Your task to perform on an android device: check android version Image 0: 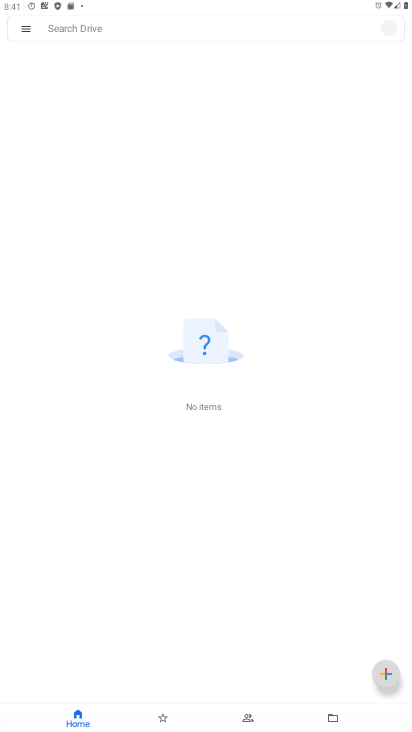
Step 0: press home button
Your task to perform on an android device: check android version Image 1: 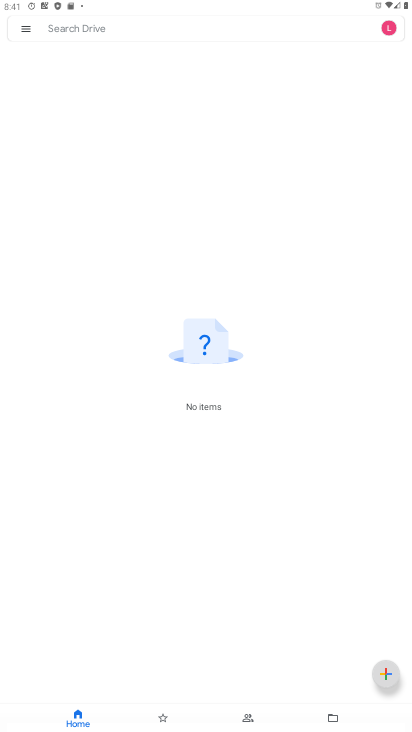
Step 1: drag from (303, 671) to (1, 190)
Your task to perform on an android device: check android version Image 2: 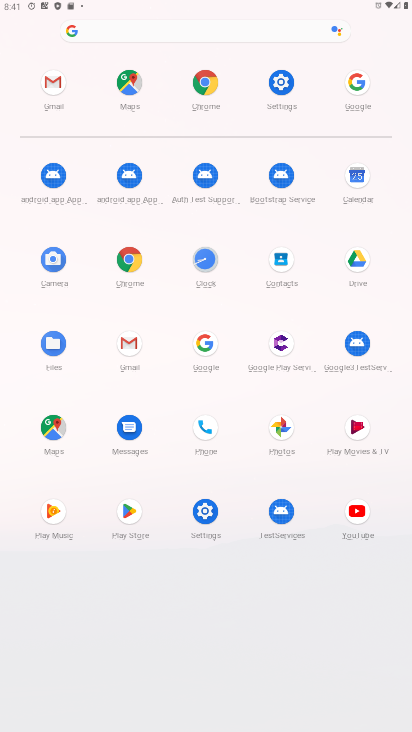
Step 2: click (212, 518)
Your task to perform on an android device: check android version Image 3: 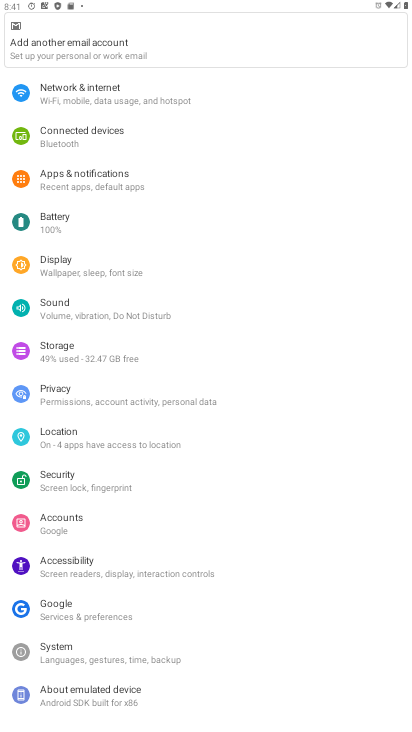
Step 3: click (99, 694)
Your task to perform on an android device: check android version Image 4: 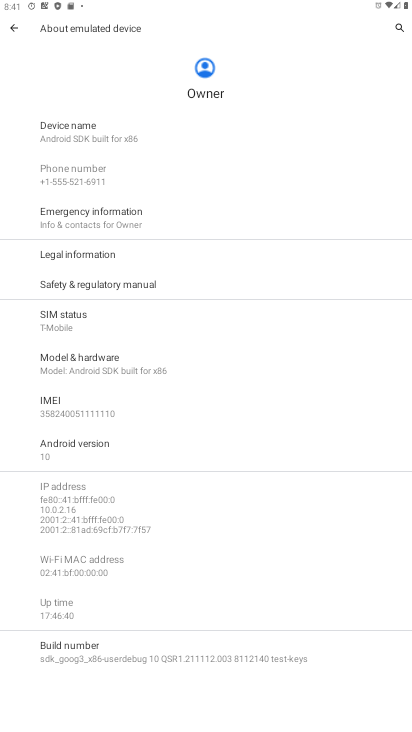
Step 4: click (100, 462)
Your task to perform on an android device: check android version Image 5: 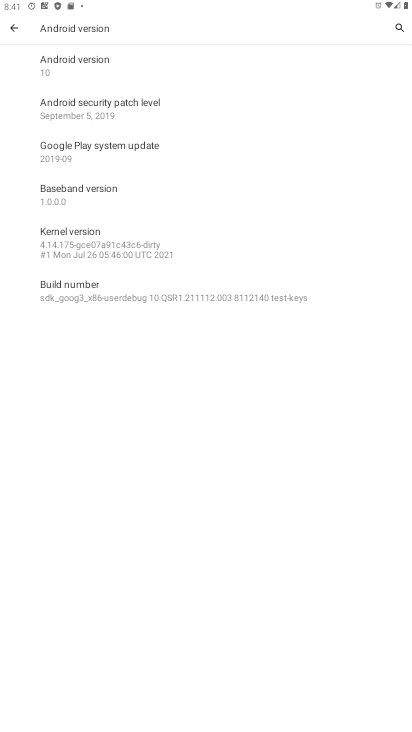
Step 5: task complete